Your task to perform on an android device: choose inbox layout in the gmail app Image 0: 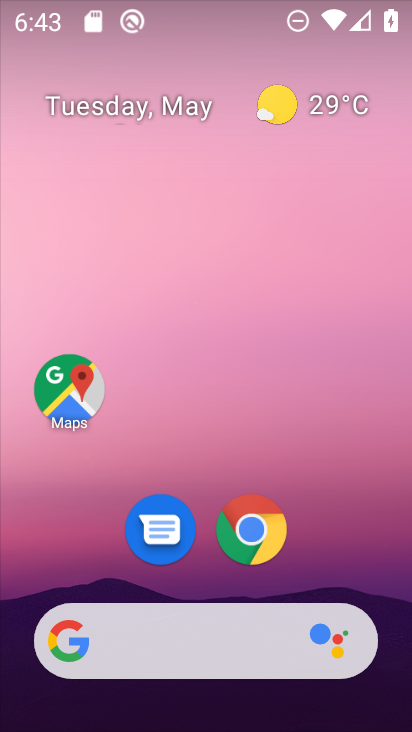
Step 0: drag from (385, 617) to (305, 75)
Your task to perform on an android device: choose inbox layout in the gmail app Image 1: 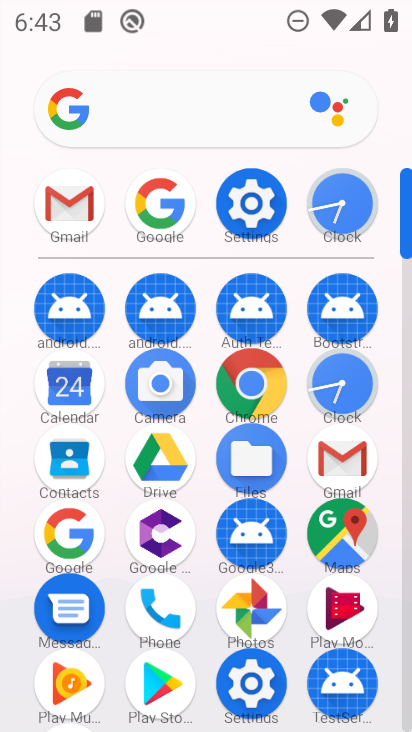
Step 1: click (359, 445)
Your task to perform on an android device: choose inbox layout in the gmail app Image 2: 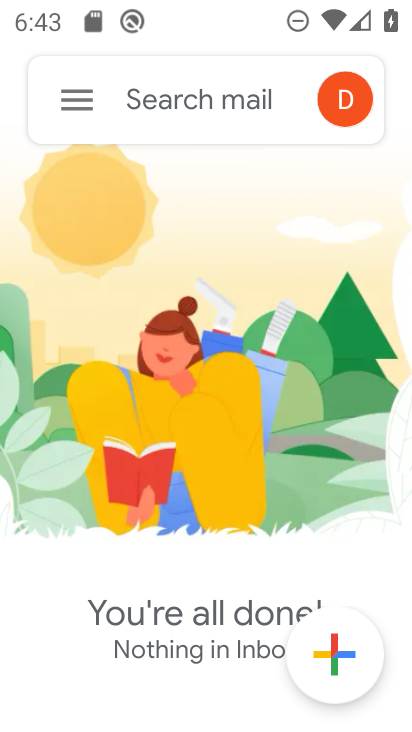
Step 2: task complete